Your task to perform on an android device: turn on location history Image 0: 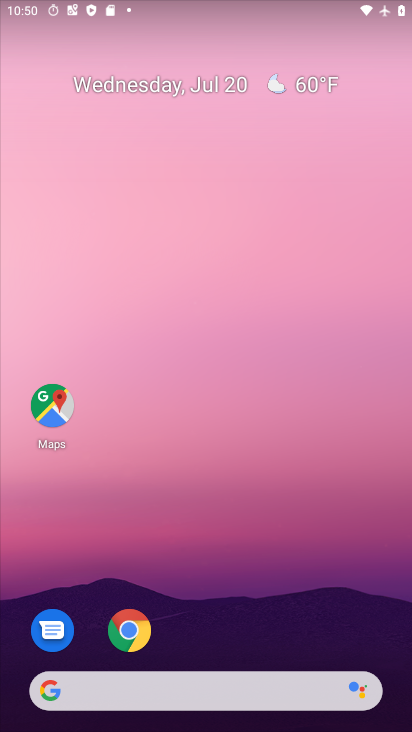
Step 0: drag from (185, 633) to (218, 133)
Your task to perform on an android device: turn on location history Image 1: 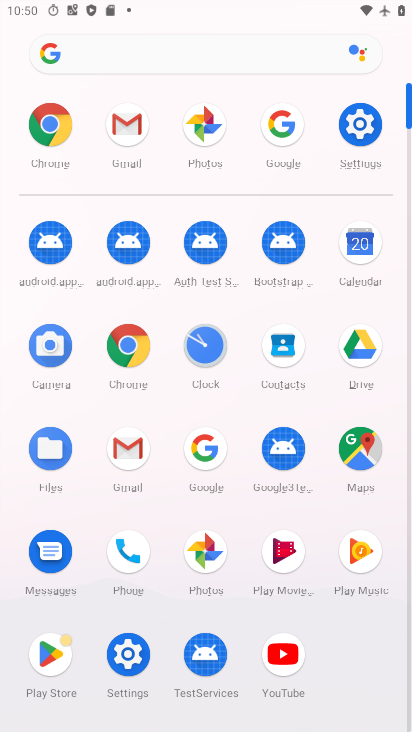
Step 1: click (360, 125)
Your task to perform on an android device: turn on location history Image 2: 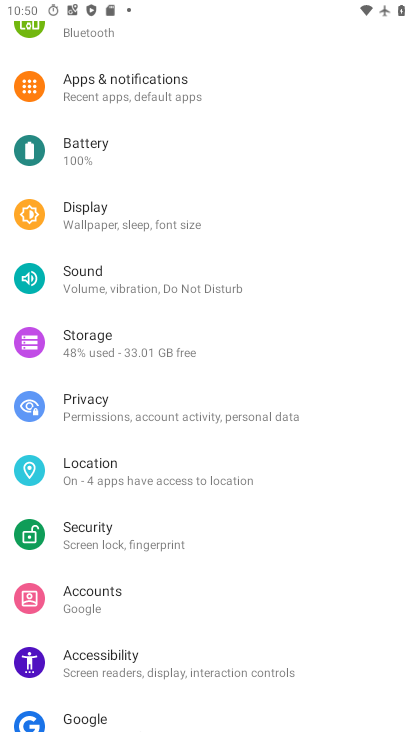
Step 2: click (123, 473)
Your task to perform on an android device: turn on location history Image 3: 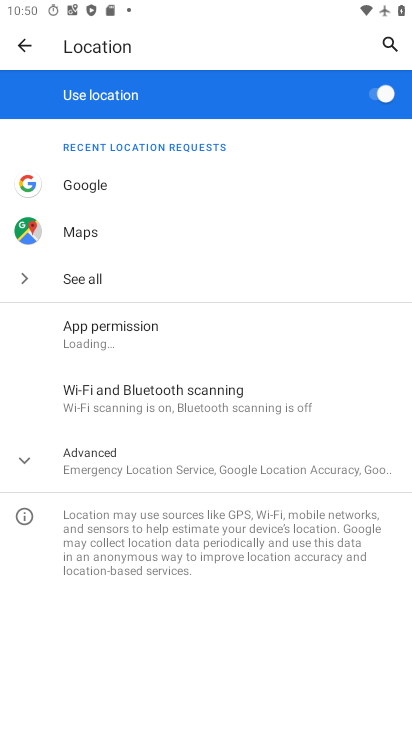
Step 3: click (107, 459)
Your task to perform on an android device: turn on location history Image 4: 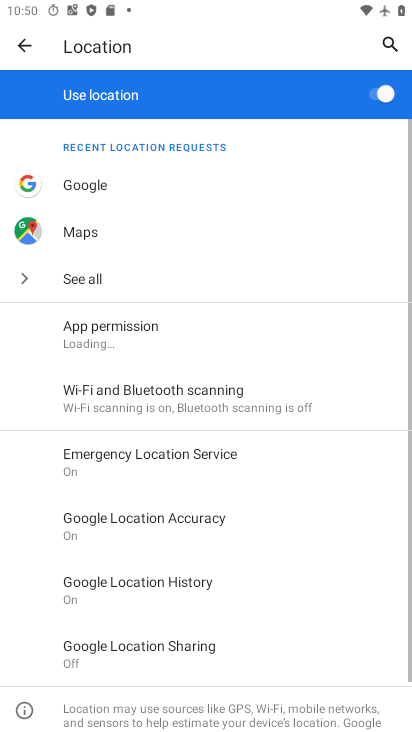
Step 4: click (128, 583)
Your task to perform on an android device: turn on location history Image 5: 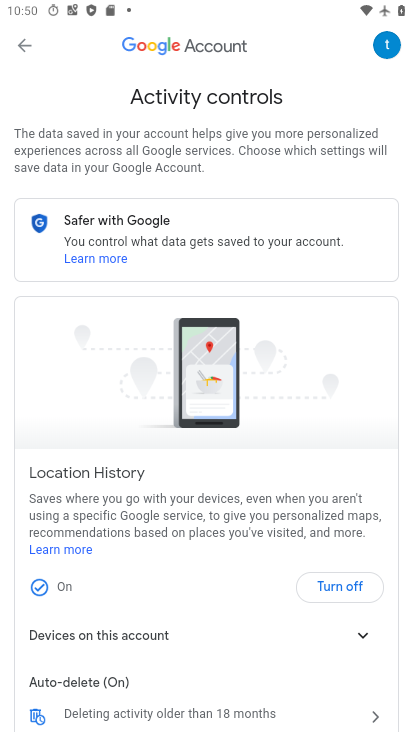
Step 5: task complete